Your task to perform on an android device: Search for seafood restaurants on Google Maps Image 0: 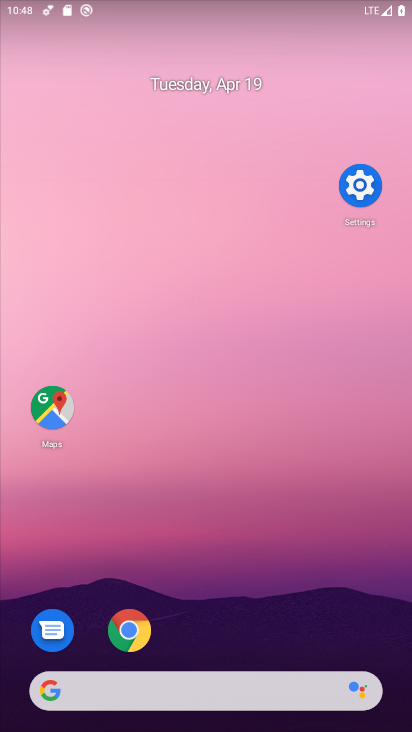
Step 0: drag from (235, 566) to (290, 113)
Your task to perform on an android device: Search for seafood restaurants on Google Maps Image 1: 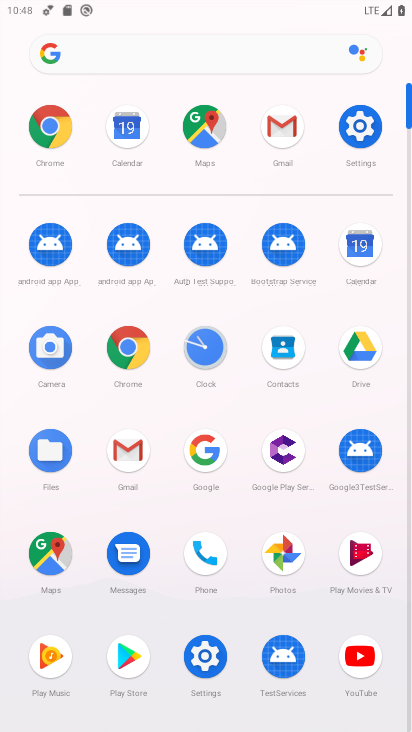
Step 1: click (63, 548)
Your task to perform on an android device: Search for seafood restaurants on Google Maps Image 2: 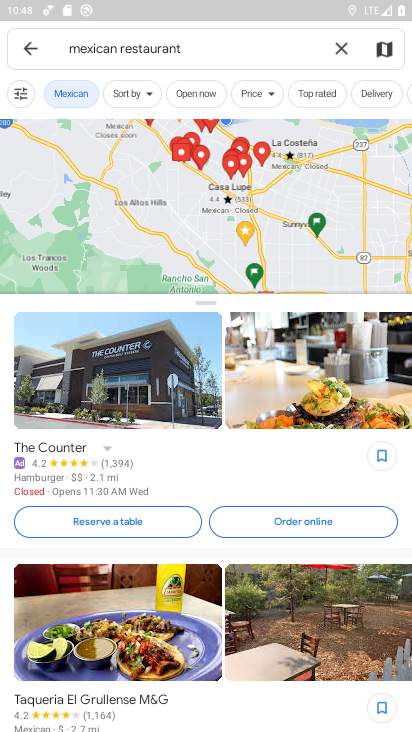
Step 2: click (338, 59)
Your task to perform on an android device: Search for seafood restaurants on Google Maps Image 3: 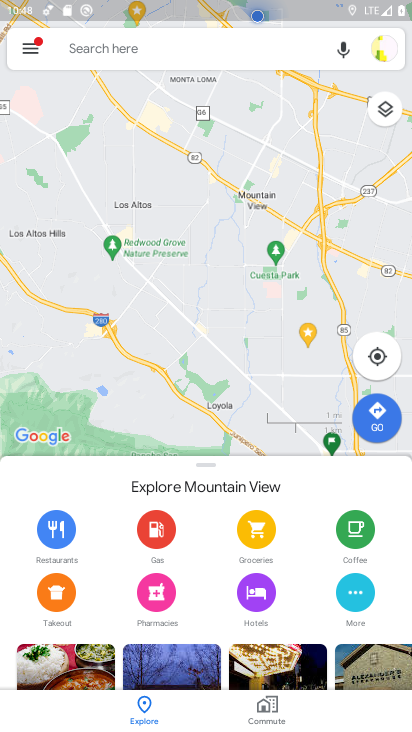
Step 3: click (286, 54)
Your task to perform on an android device: Search for seafood restaurants on Google Maps Image 4: 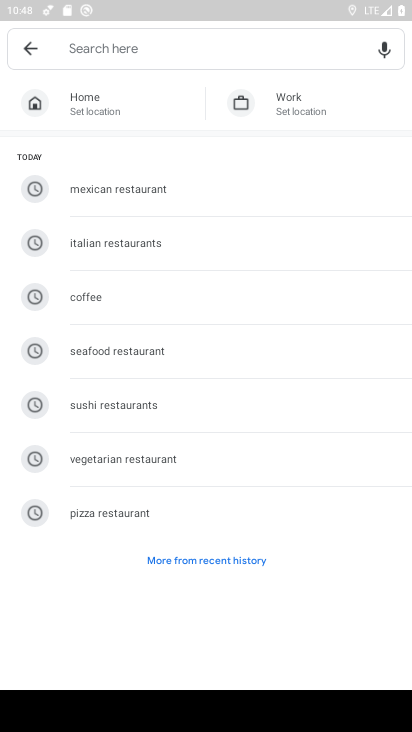
Step 4: click (152, 359)
Your task to perform on an android device: Search for seafood restaurants on Google Maps Image 5: 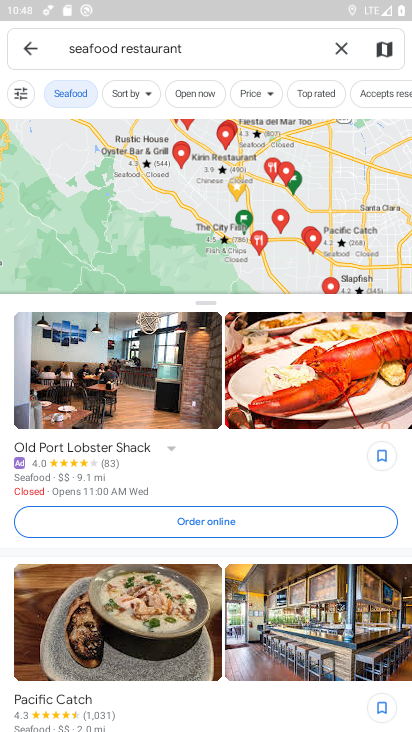
Step 5: task complete